Your task to perform on an android device: open a bookmark in the chrome app Image 0: 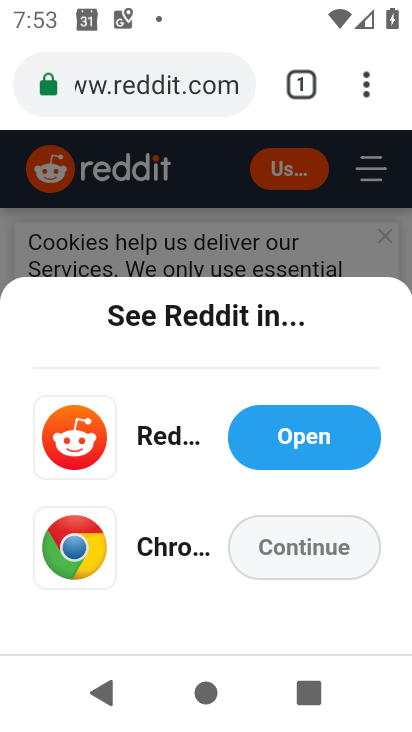
Step 0: drag from (364, 85) to (132, 323)
Your task to perform on an android device: open a bookmark in the chrome app Image 1: 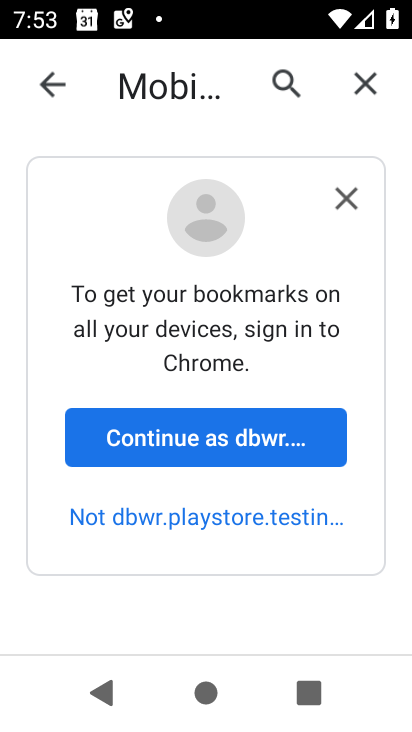
Step 1: click (192, 440)
Your task to perform on an android device: open a bookmark in the chrome app Image 2: 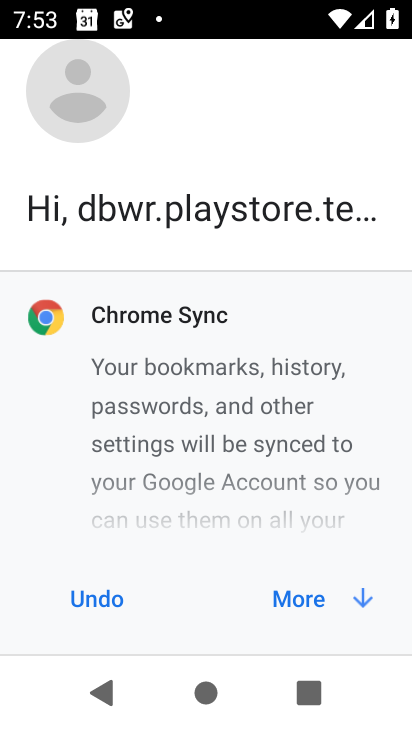
Step 2: click (320, 608)
Your task to perform on an android device: open a bookmark in the chrome app Image 3: 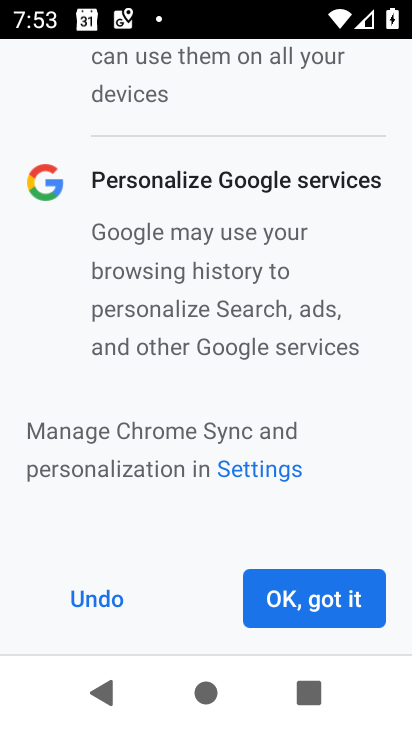
Step 3: click (320, 608)
Your task to perform on an android device: open a bookmark in the chrome app Image 4: 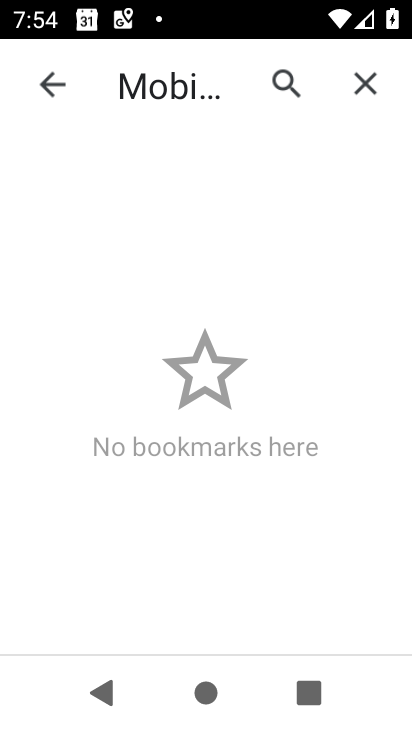
Step 4: drag from (193, 468) to (183, 288)
Your task to perform on an android device: open a bookmark in the chrome app Image 5: 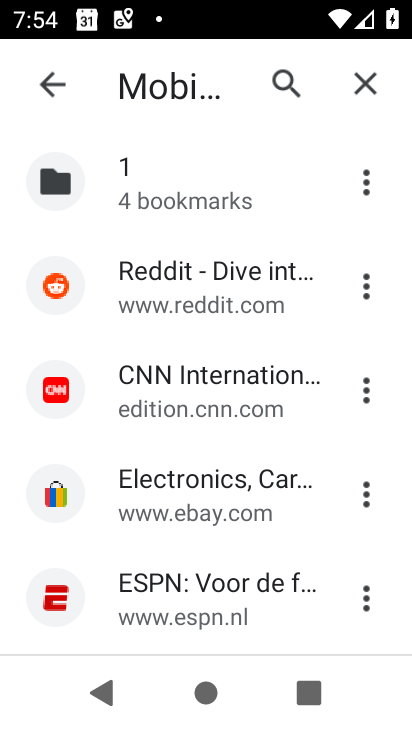
Step 5: click (191, 394)
Your task to perform on an android device: open a bookmark in the chrome app Image 6: 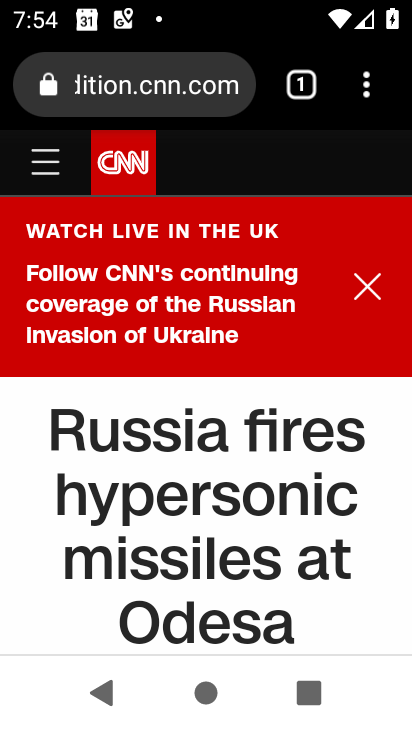
Step 6: task complete